Your task to perform on an android device: turn pop-ups off in chrome Image 0: 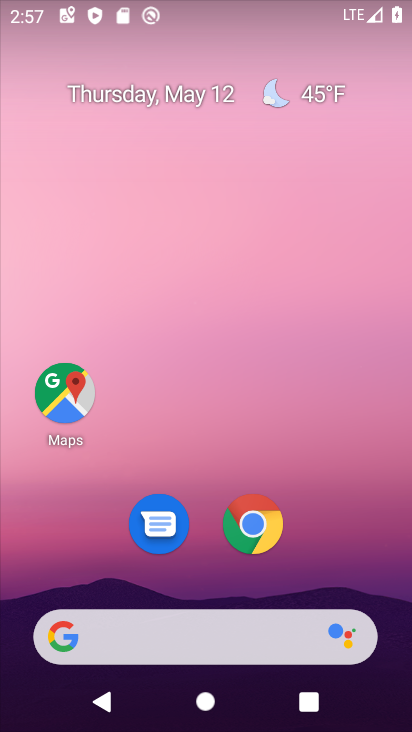
Step 0: click (261, 523)
Your task to perform on an android device: turn pop-ups off in chrome Image 1: 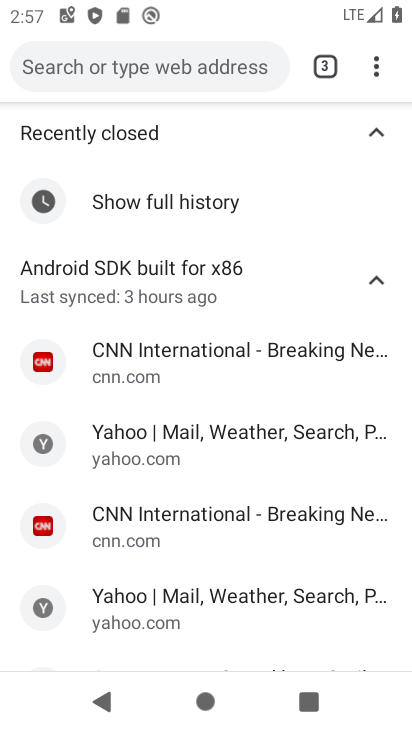
Step 1: click (374, 66)
Your task to perform on an android device: turn pop-ups off in chrome Image 2: 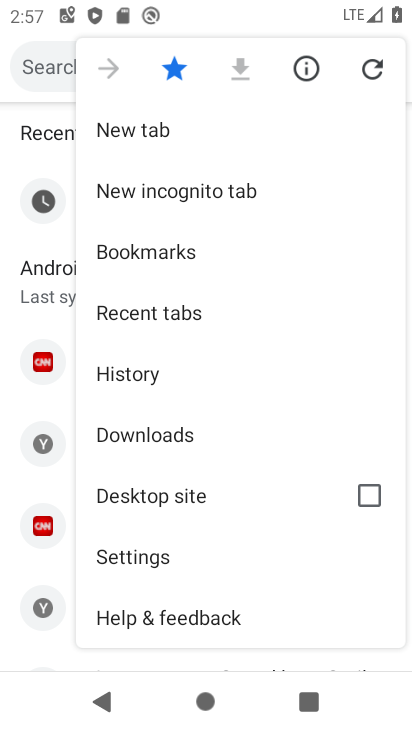
Step 2: click (159, 558)
Your task to perform on an android device: turn pop-ups off in chrome Image 3: 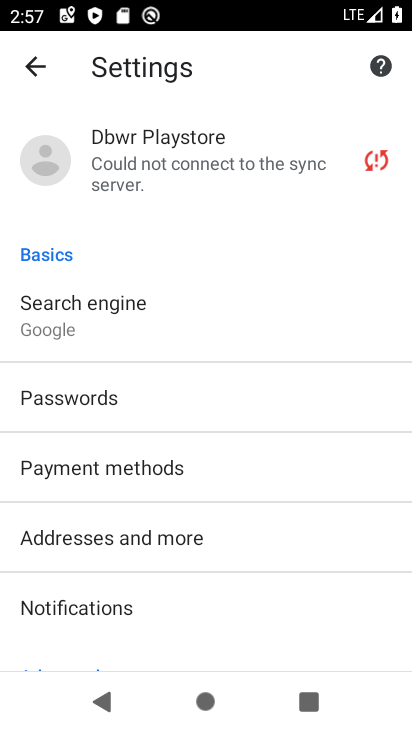
Step 3: drag from (159, 556) to (193, 267)
Your task to perform on an android device: turn pop-ups off in chrome Image 4: 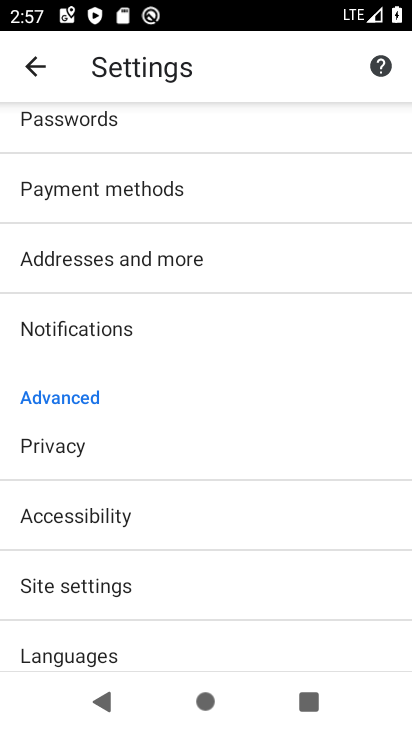
Step 4: click (173, 589)
Your task to perform on an android device: turn pop-ups off in chrome Image 5: 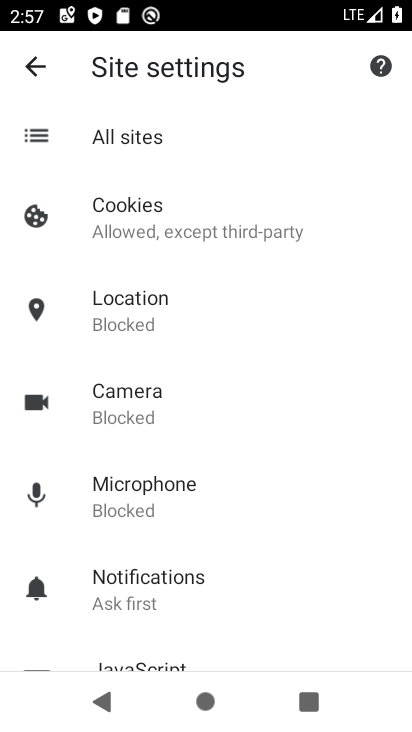
Step 5: drag from (290, 525) to (299, 403)
Your task to perform on an android device: turn pop-ups off in chrome Image 6: 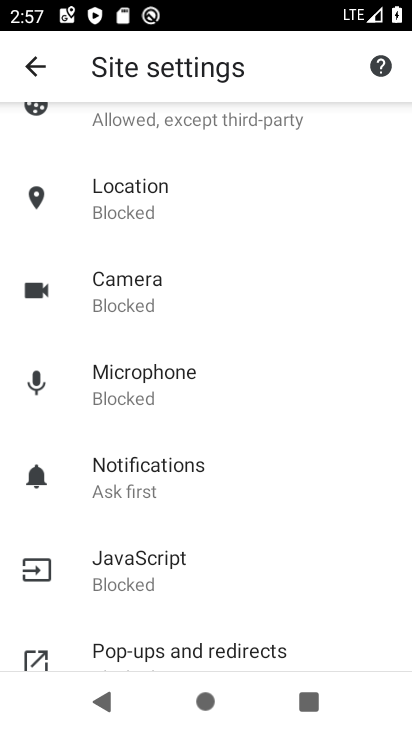
Step 6: drag from (290, 462) to (303, 287)
Your task to perform on an android device: turn pop-ups off in chrome Image 7: 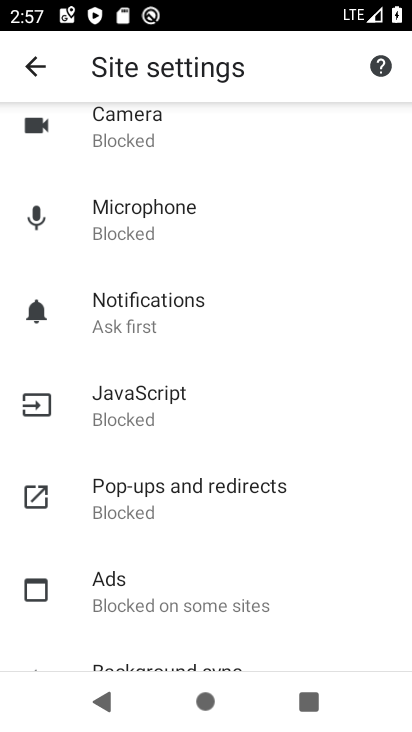
Step 7: click (274, 493)
Your task to perform on an android device: turn pop-ups off in chrome Image 8: 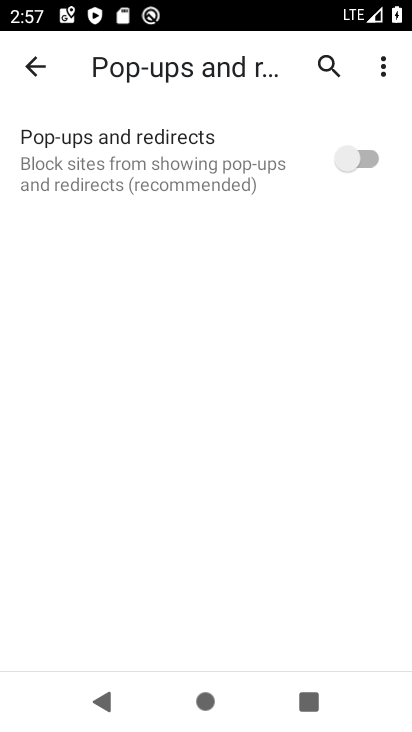
Step 8: task complete